Your task to perform on an android device: Open Chrome and go to the settings page Image 0: 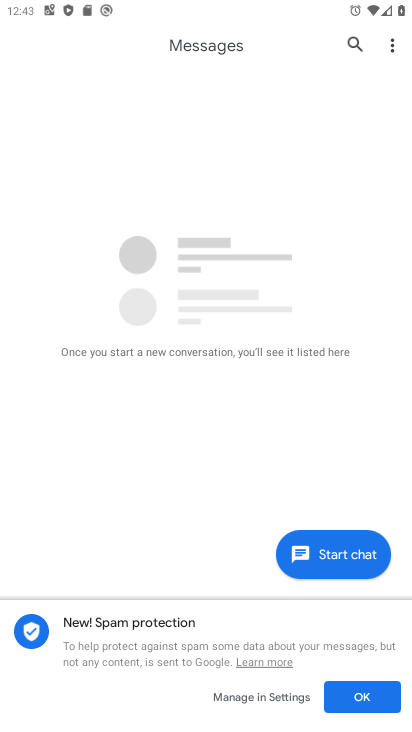
Step 0: press home button
Your task to perform on an android device: Open Chrome and go to the settings page Image 1: 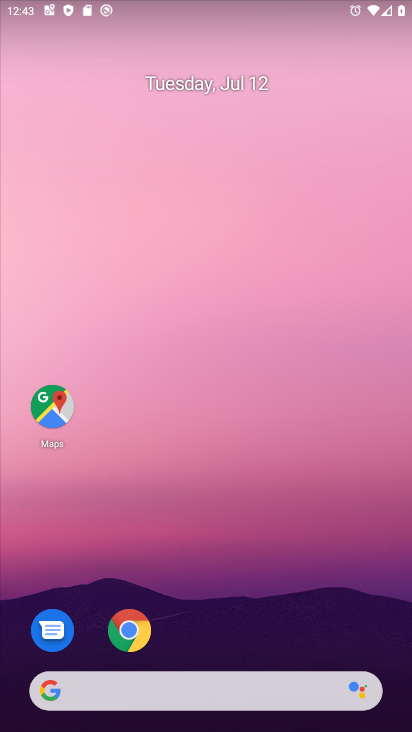
Step 1: click (129, 631)
Your task to perform on an android device: Open Chrome and go to the settings page Image 2: 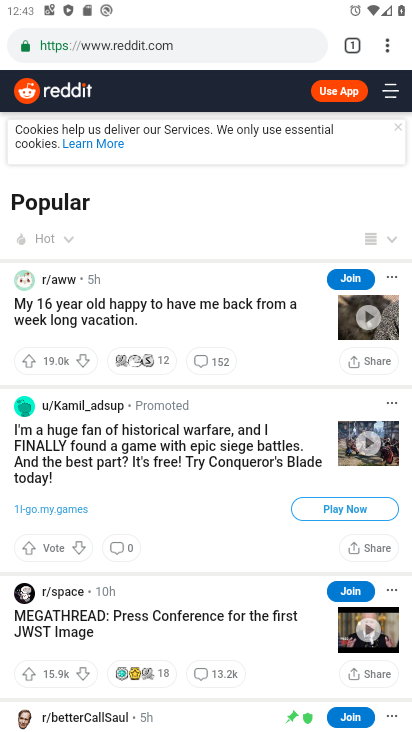
Step 2: click (387, 46)
Your task to perform on an android device: Open Chrome and go to the settings page Image 3: 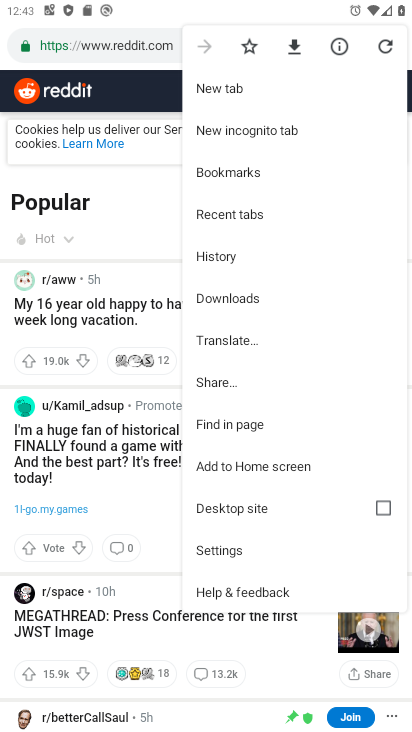
Step 3: click (217, 551)
Your task to perform on an android device: Open Chrome and go to the settings page Image 4: 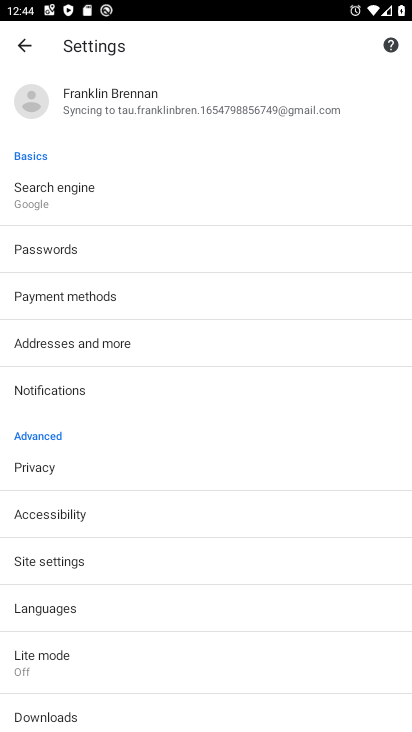
Step 4: task complete